Your task to perform on an android device: Open internet settings Image 0: 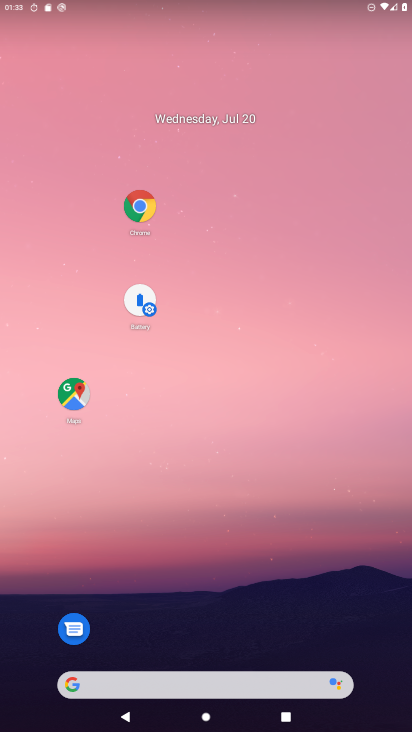
Step 0: drag from (205, 578) to (224, 225)
Your task to perform on an android device: Open internet settings Image 1: 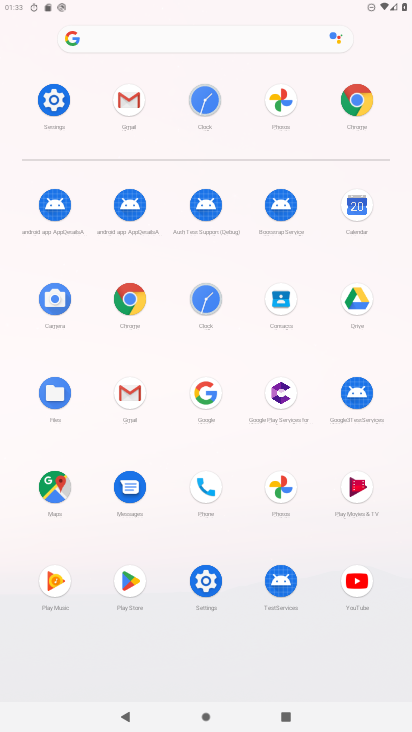
Step 1: click (206, 569)
Your task to perform on an android device: Open internet settings Image 2: 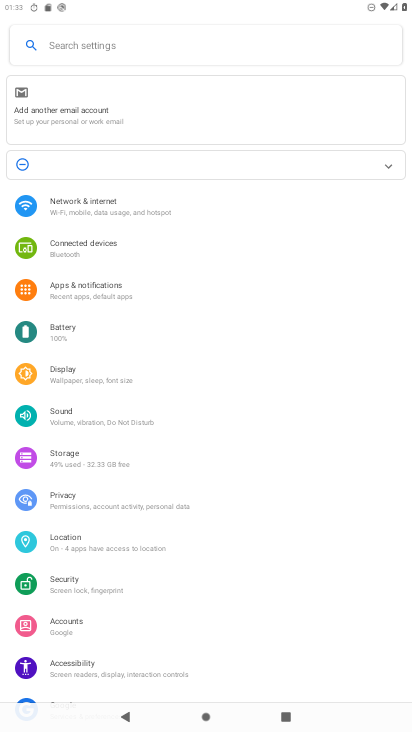
Step 2: click (114, 210)
Your task to perform on an android device: Open internet settings Image 3: 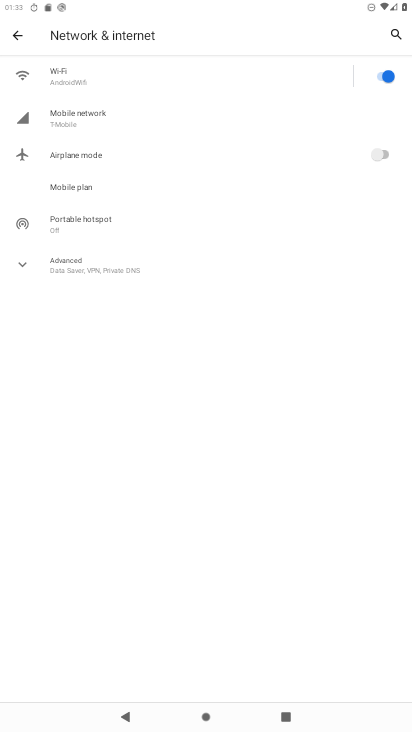
Step 3: task complete